Your task to perform on an android device: Go to accessibility settings Image 0: 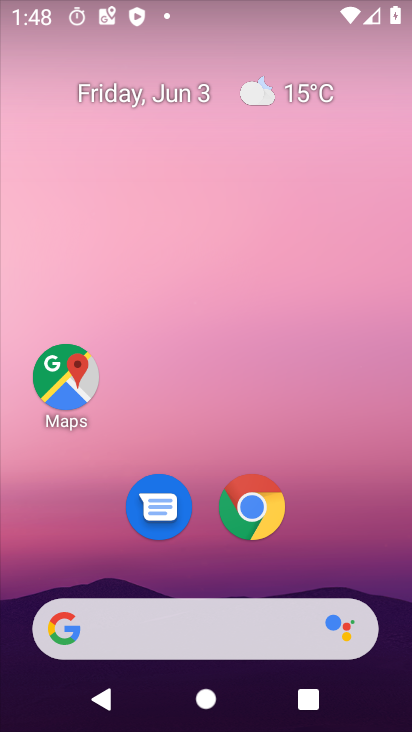
Step 0: drag from (390, 642) to (281, 64)
Your task to perform on an android device: Go to accessibility settings Image 1: 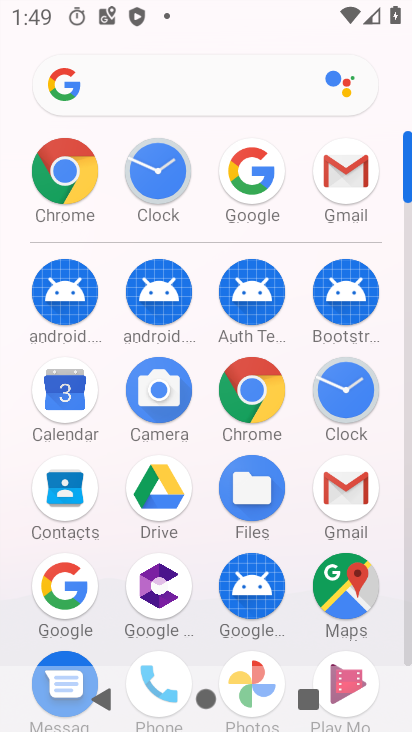
Step 1: drag from (295, 639) to (295, 95)
Your task to perform on an android device: Go to accessibility settings Image 2: 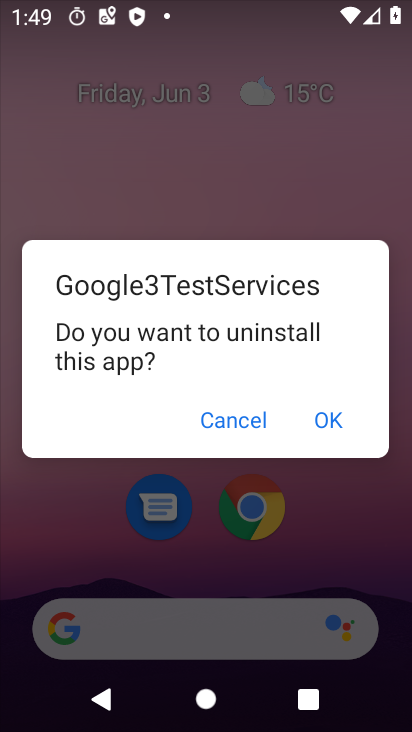
Step 2: click (236, 422)
Your task to perform on an android device: Go to accessibility settings Image 3: 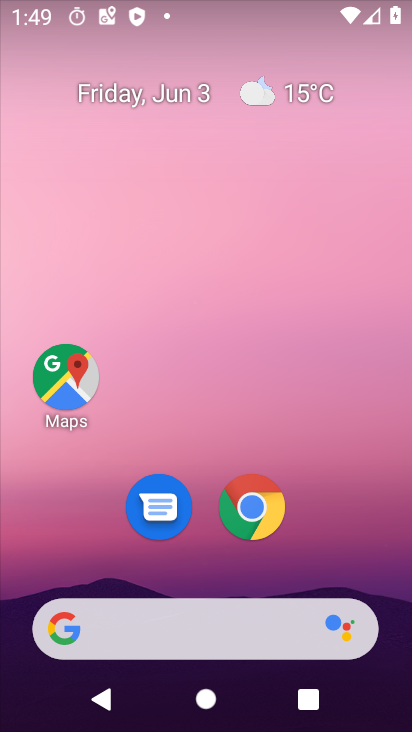
Step 3: drag from (382, 641) to (355, 32)
Your task to perform on an android device: Go to accessibility settings Image 4: 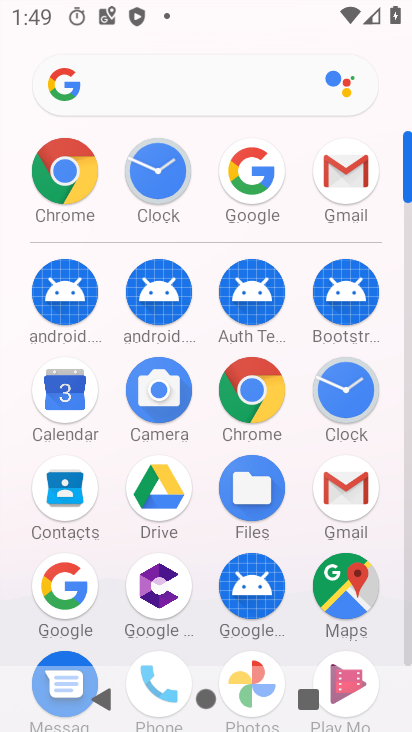
Step 4: drag from (299, 599) to (304, 278)
Your task to perform on an android device: Go to accessibility settings Image 5: 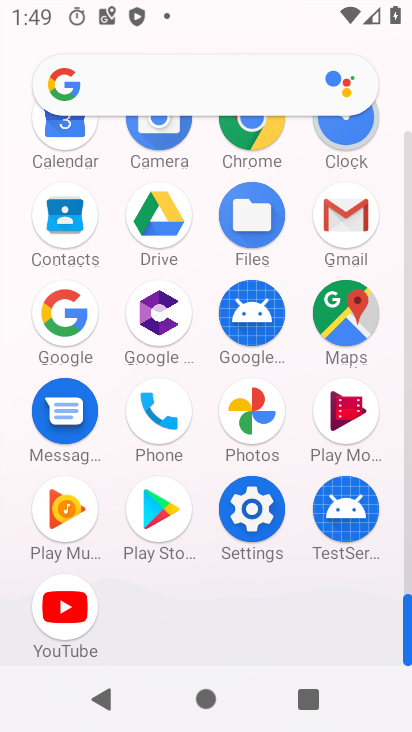
Step 5: click (248, 544)
Your task to perform on an android device: Go to accessibility settings Image 6: 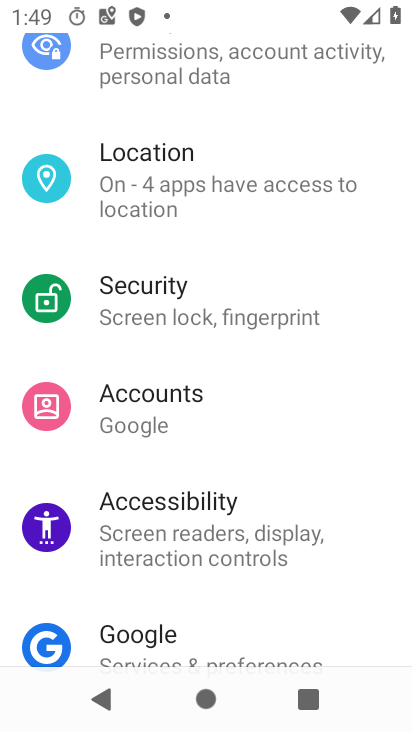
Step 6: click (248, 544)
Your task to perform on an android device: Go to accessibility settings Image 7: 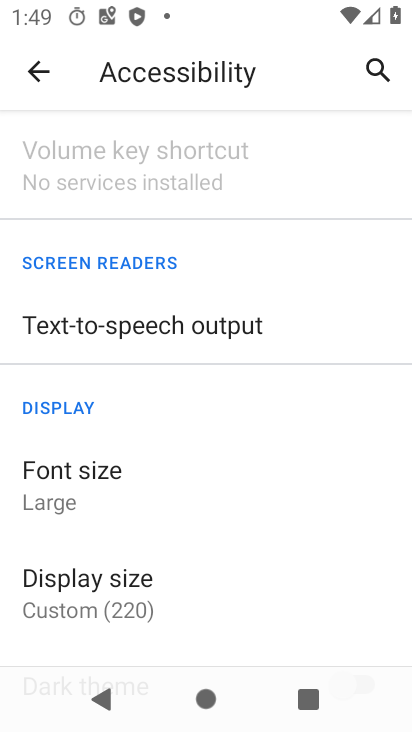
Step 7: task complete